Your task to perform on an android device: Go to internet settings Image 0: 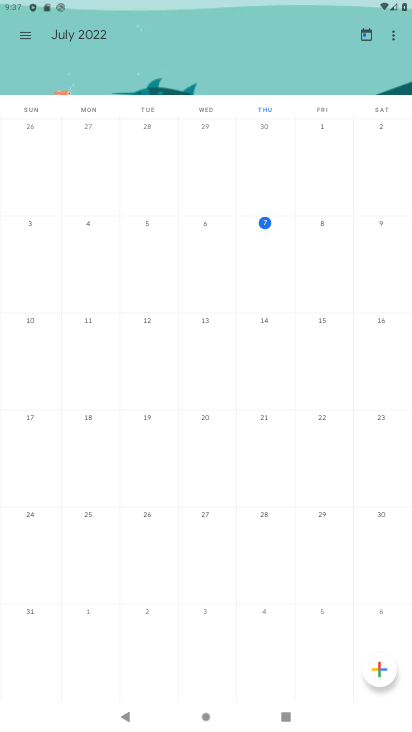
Step 0: press home button
Your task to perform on an android device: Go to internet settings Image 1: 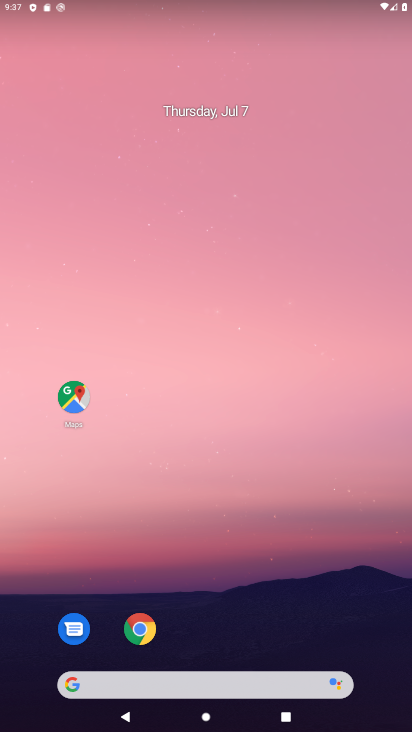
Step 1: drag from (136, 429) to (221, 131)
Your task to perform on an android device: Go to internet settings Image 2: 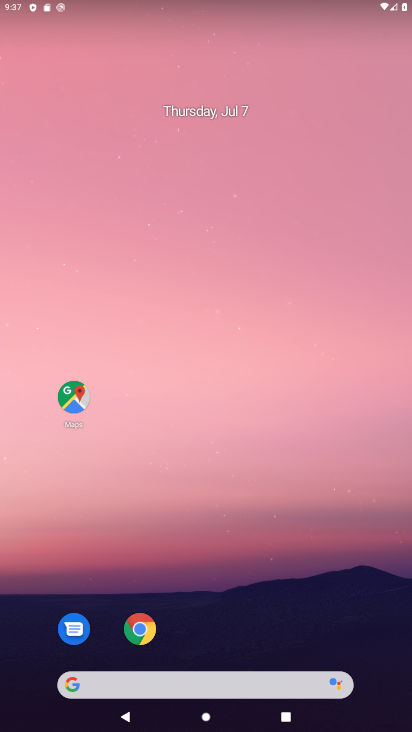
Step 2: drag from (65, 688) to (0, 601)
Your task to perform on an android device: Go to internet settings Image 3: 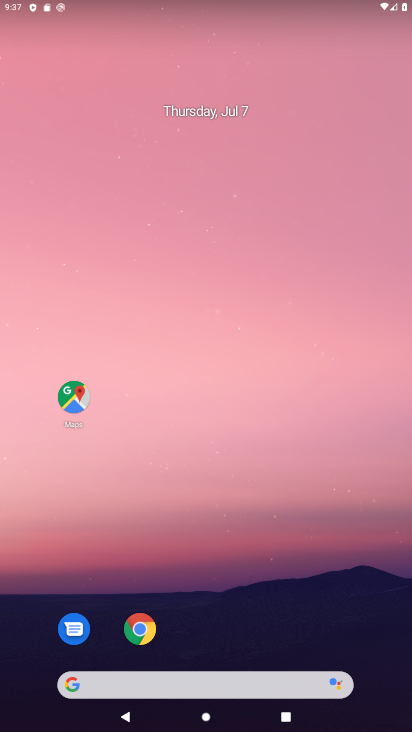
Step 3: drag from (25, 723) to (221, 28)
Your task to perform on an android device: Go to internet settings Image 4: 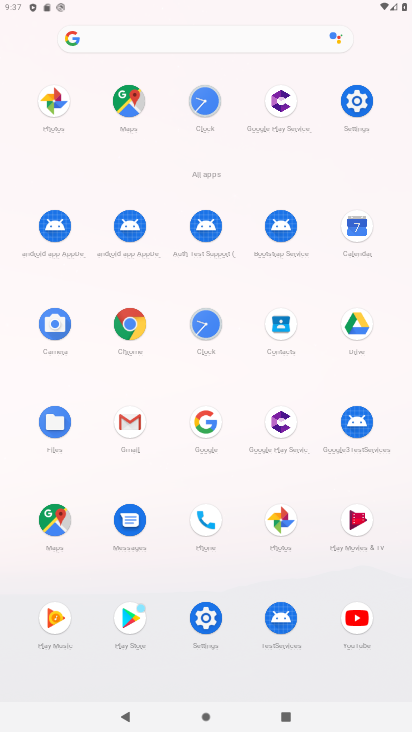
Step 4: click (205, 632)
Your task to perform on an android device: Go to internet settings Image 5: 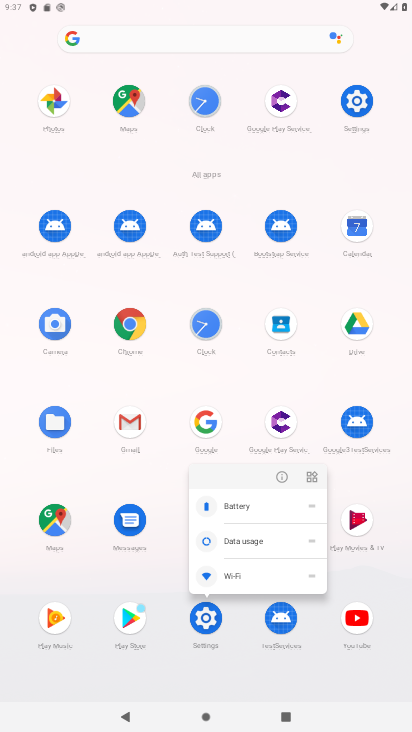
Step 5: click (203, 604)
Your task to perform on an android device: Go to internet settings Image 6: 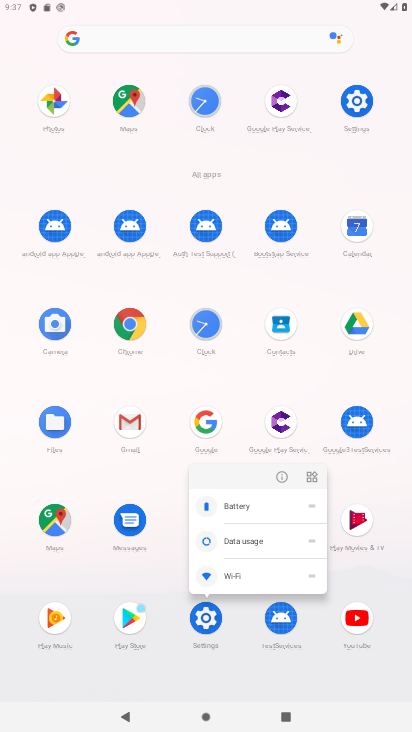
Step 6: click (198, 614)
Your task to perform on an android device: Go to internet settings Image 7: 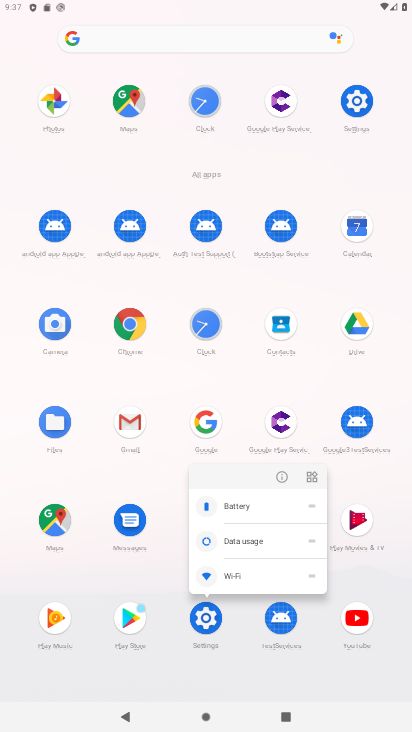
Step 7: click (198, 618)
Your task to perform on an android device: Go to internet settings Image 8: 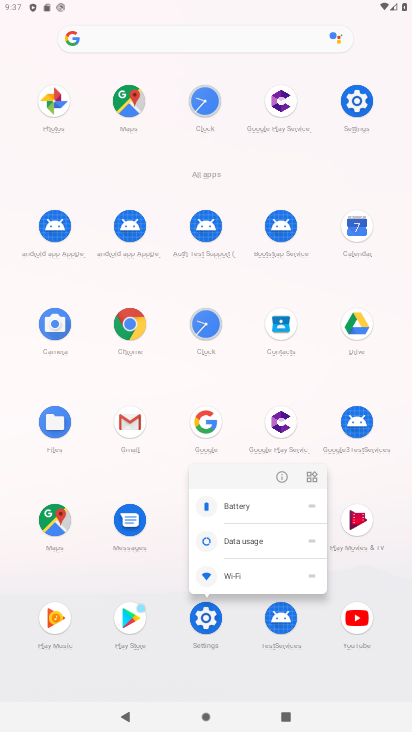
Step 8: click (225, 628)
Your task to perform on an android device: Go to internet settings Image 9: 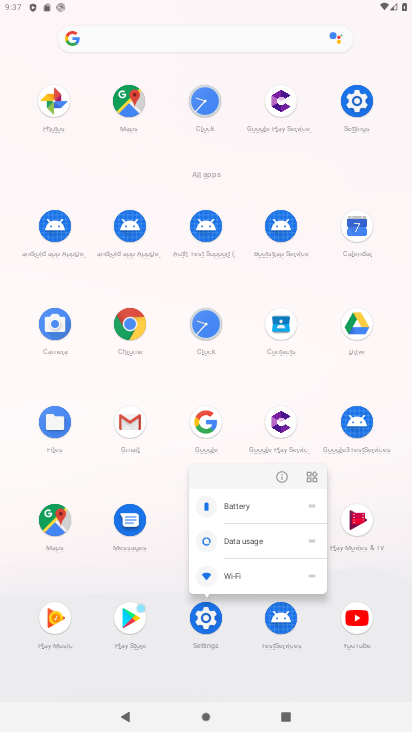
Step 9: click (202, 639)
Your task to perform on an android device: Go to internet settings Image 10: 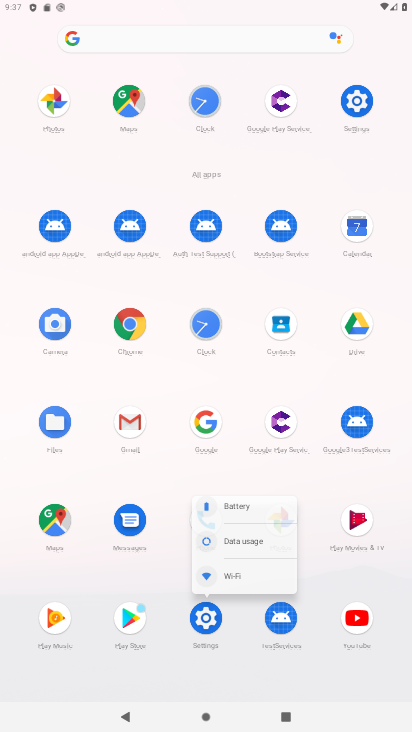
Step 10: click (202, 638)
Your task to perform on an android device: Go to internet settings Image 11: 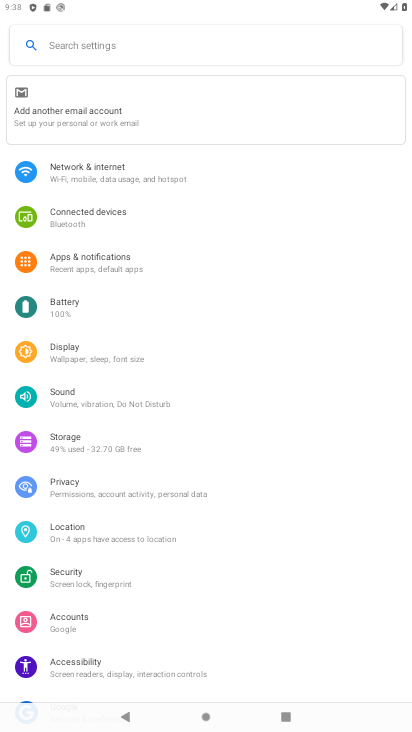
Step 11: click (87, 183)
Your task to perform on an android device: Go to internet settings Image 12: 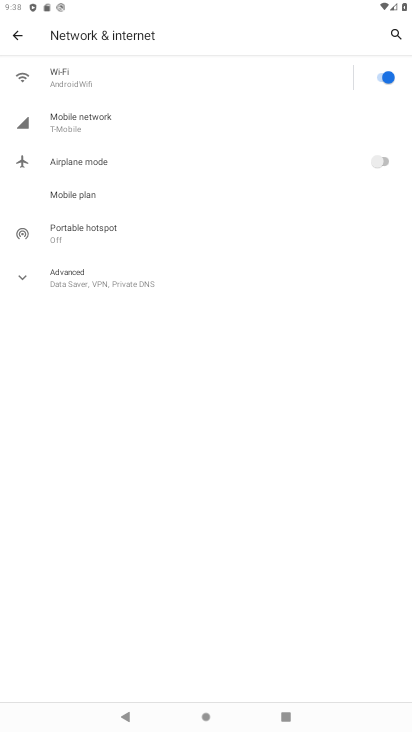
Step 12: task complete